Your task to perform on an android device: open app "Booking.com: Hotels and more" Image 0: 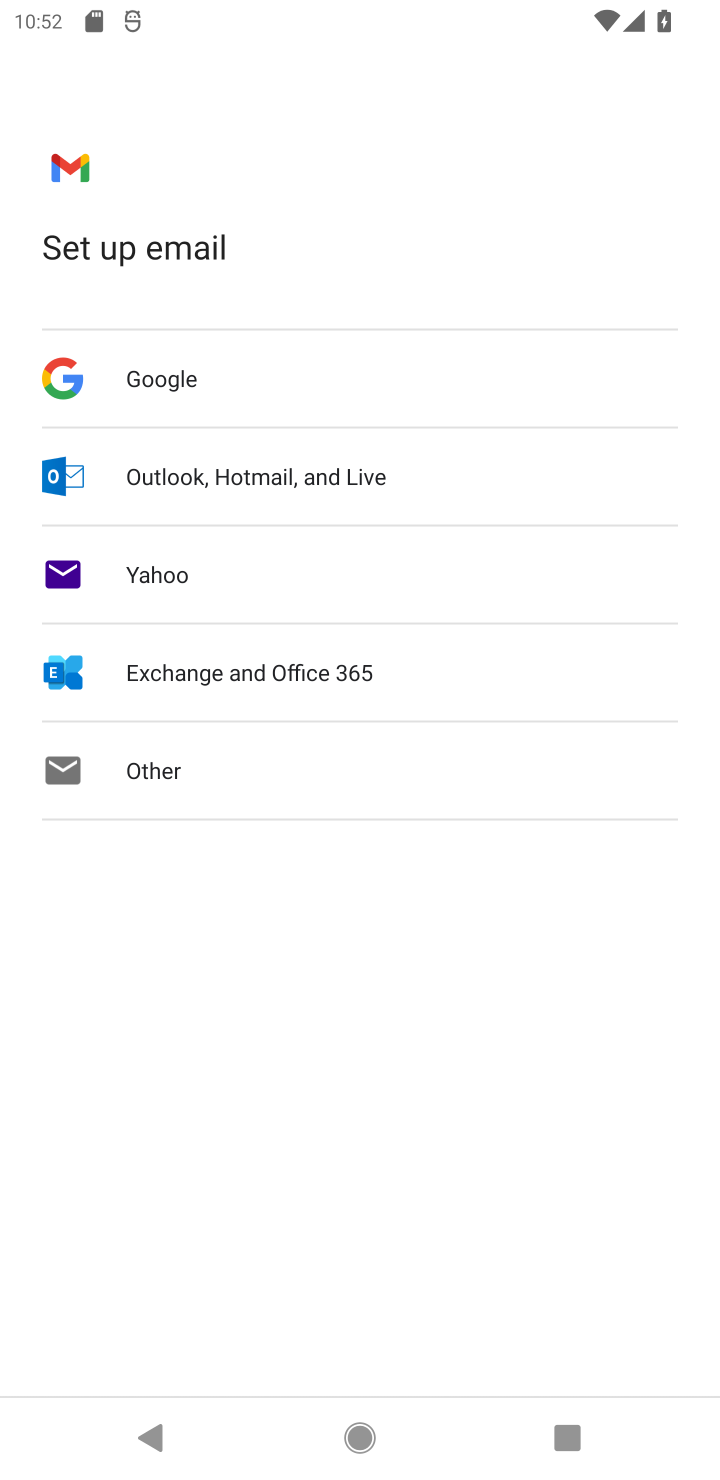
Step 0: press home button
Your task to perform on an android device: open app "Booking.com: Hotels and more" Image 1: 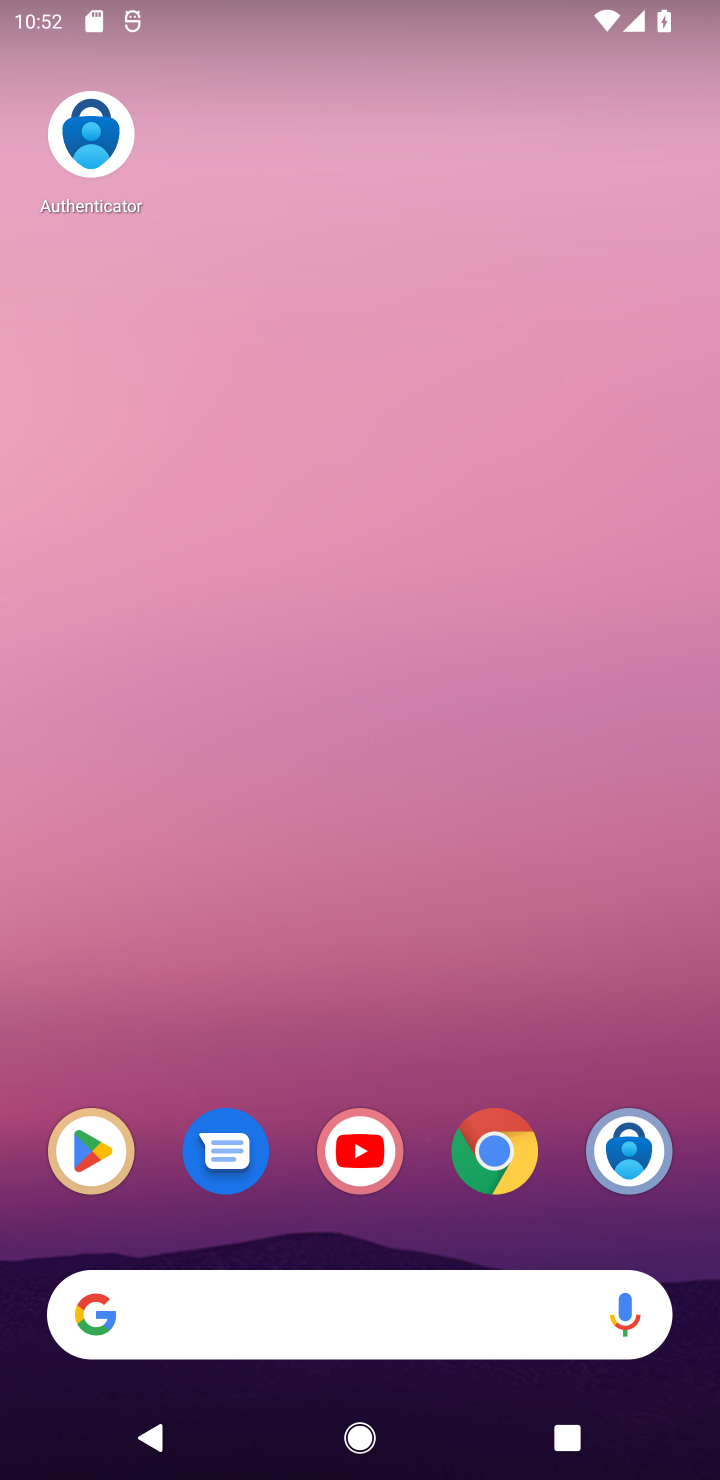
Step 1: drag from (244, 1140) to (681, 550)
Your task to perform on an android device: open app "Booking.com: Hotels and more" Image 2: 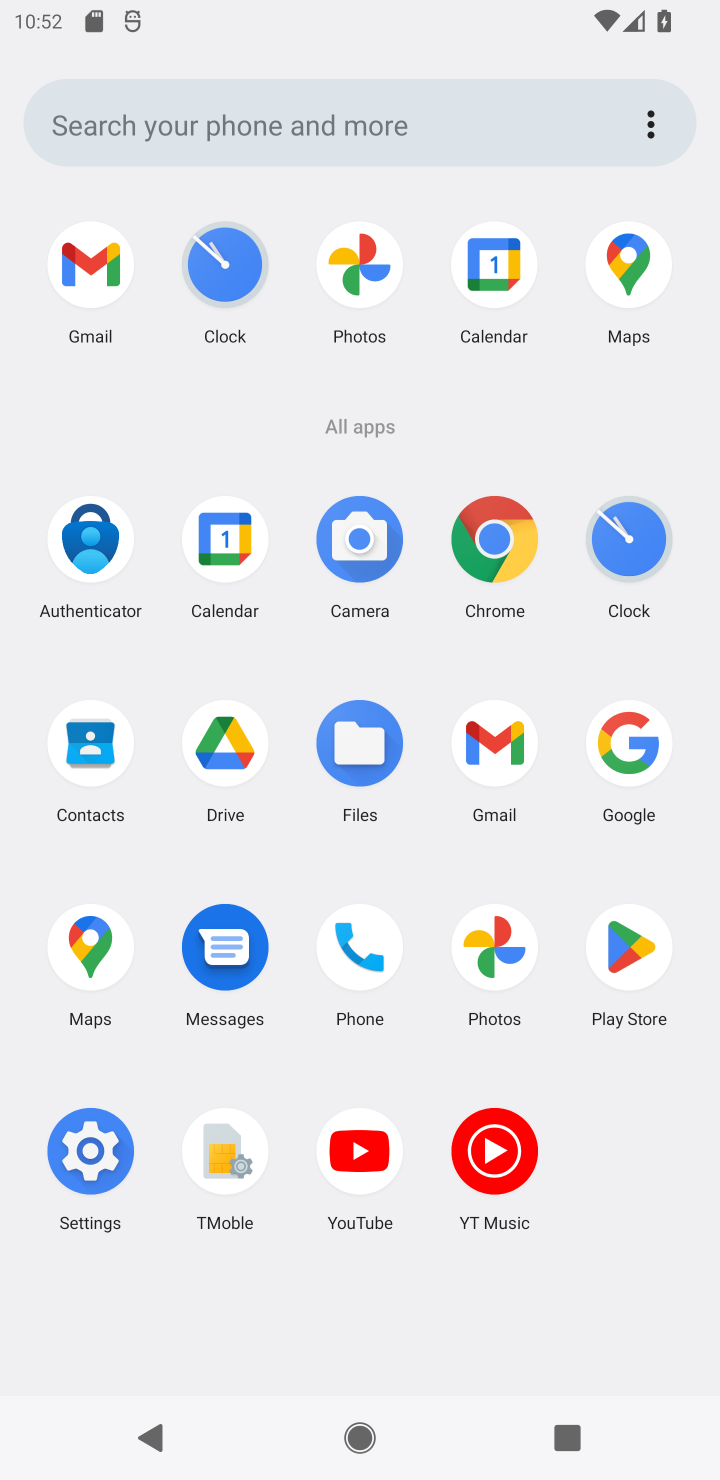
Step 2: click (624, 957)
Your task to perform on an android device: open app "Booking.com: Hotels and more" Image 3: 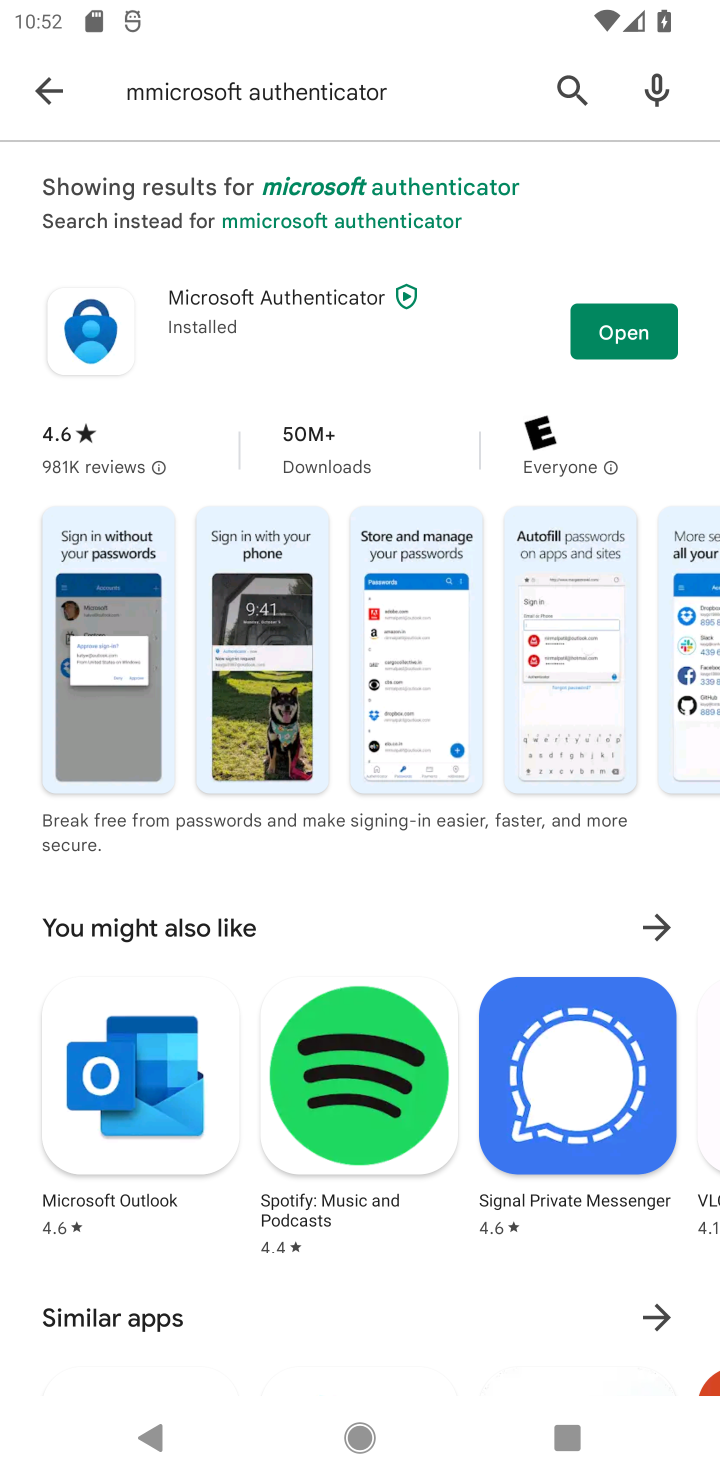
Step 3: click (30, 89)
Your task to perform on an android device: open app "Booking.com: Hotels and more" Image 4: 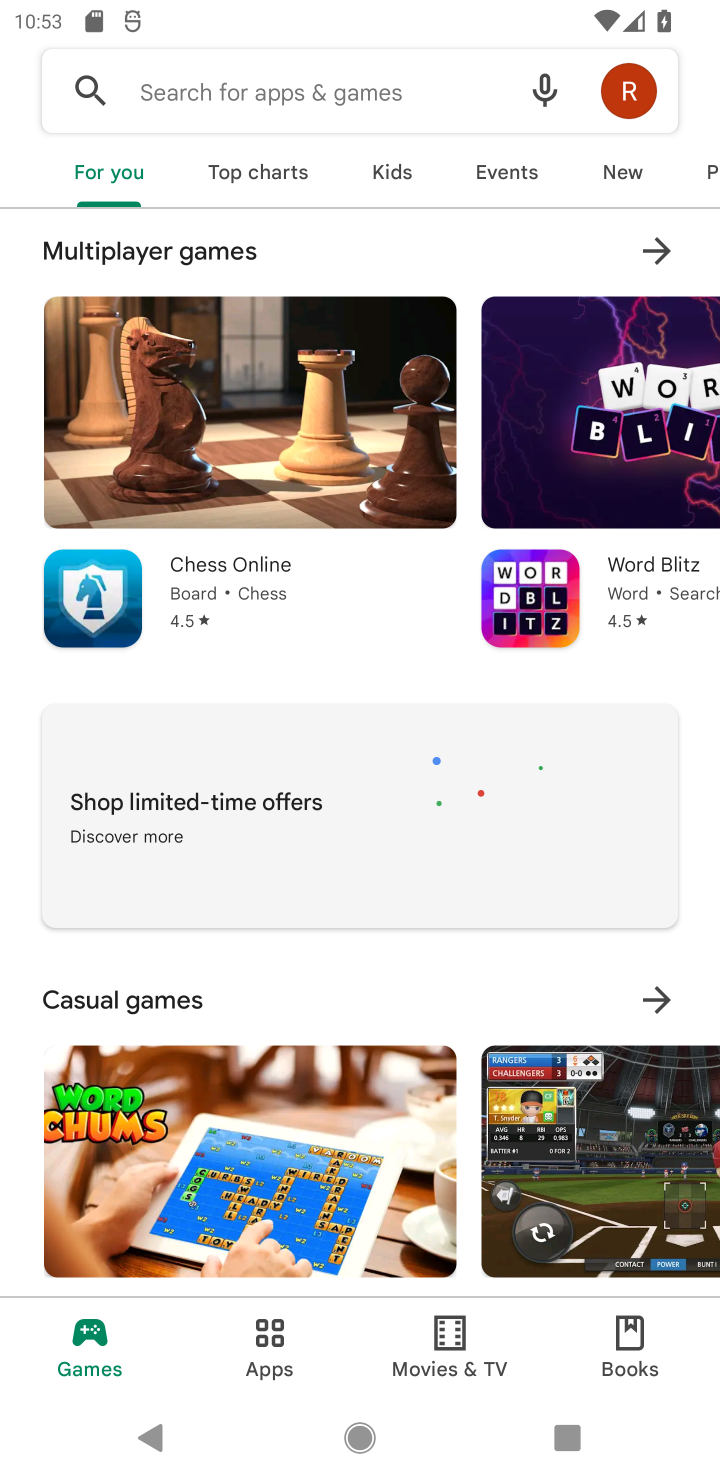
Step 4: click (181, 91)
Your task to perform on an android device: open app "Booking.com: Hotels and more" Image 5: 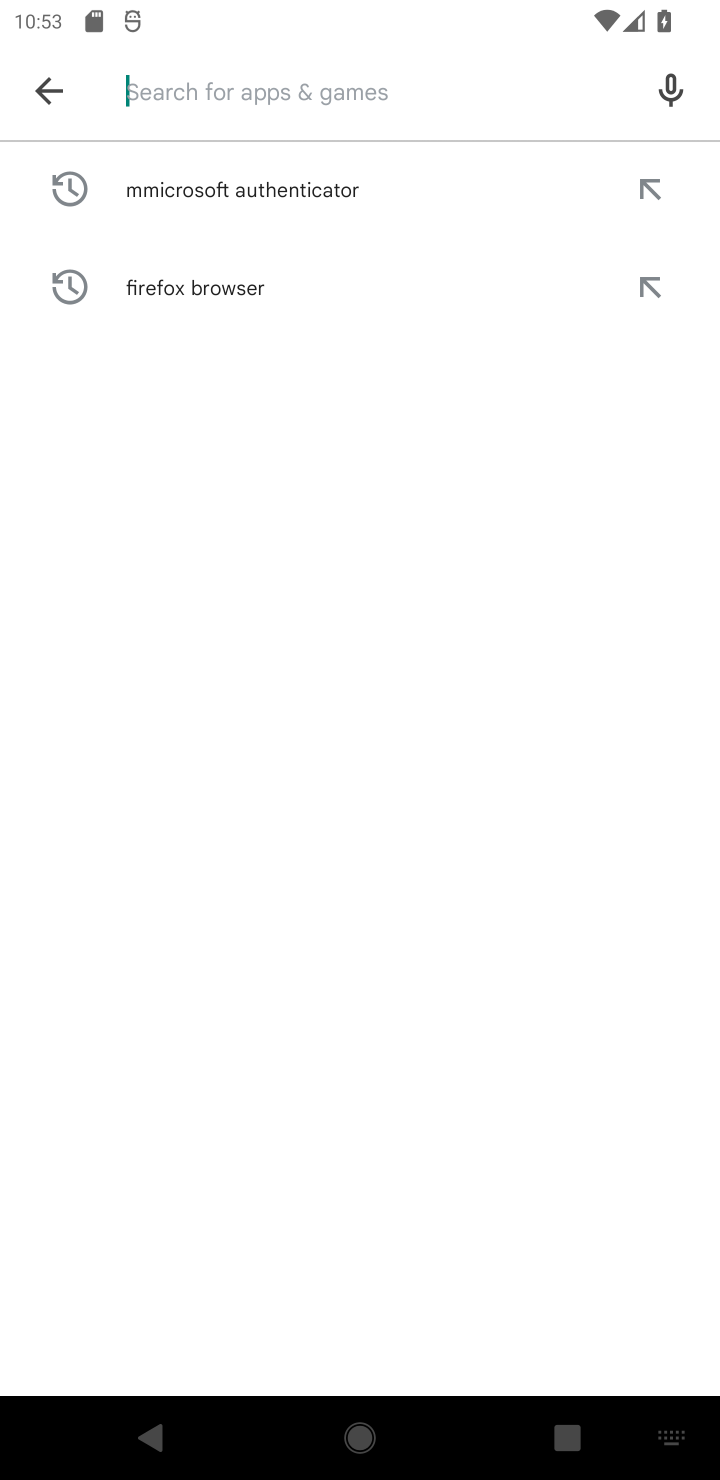
Step 5: type "Booking.com: Hotels and more"
Your task to perform on an android device: open app "Booking.com: Hotels and more" Image 6: 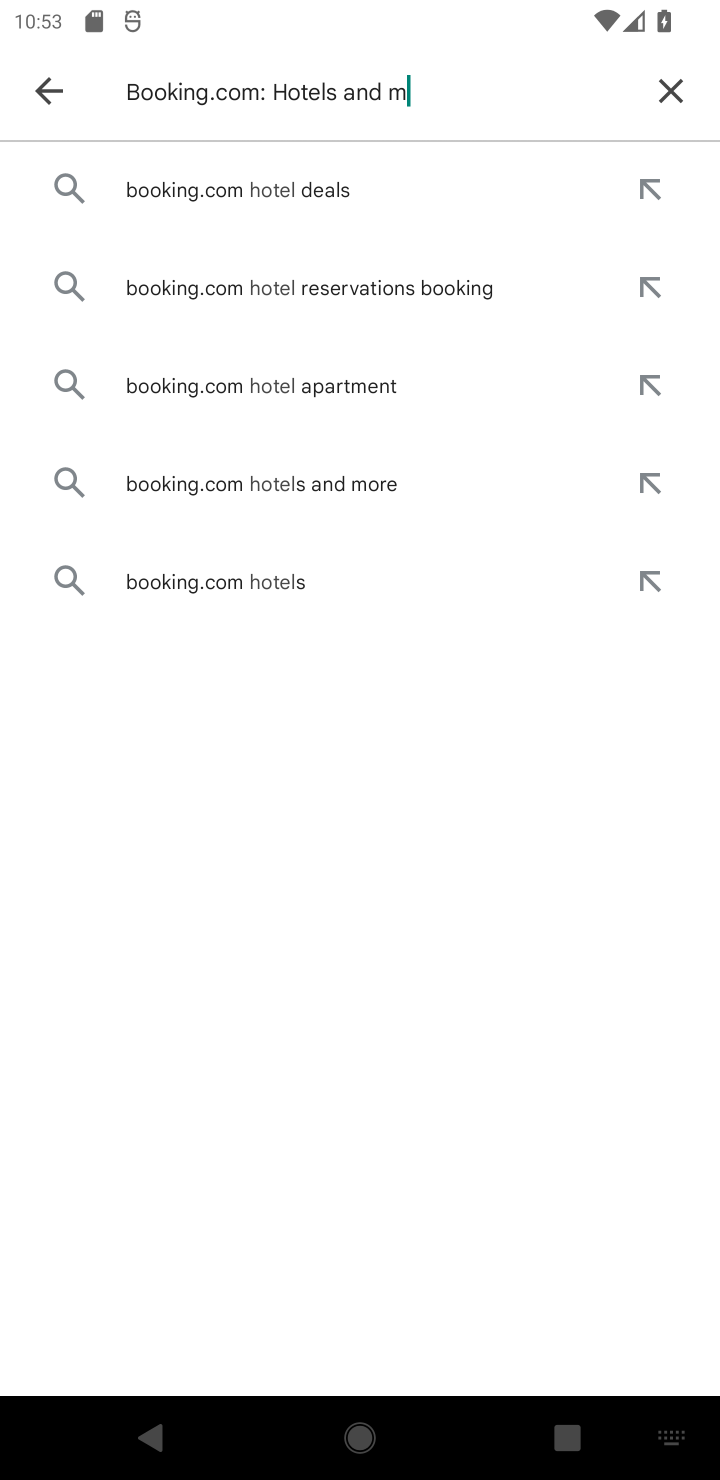
Step 6: type ""
Your task to perform on an android device: open app "Booking.com: Hotels and more" Image 7: 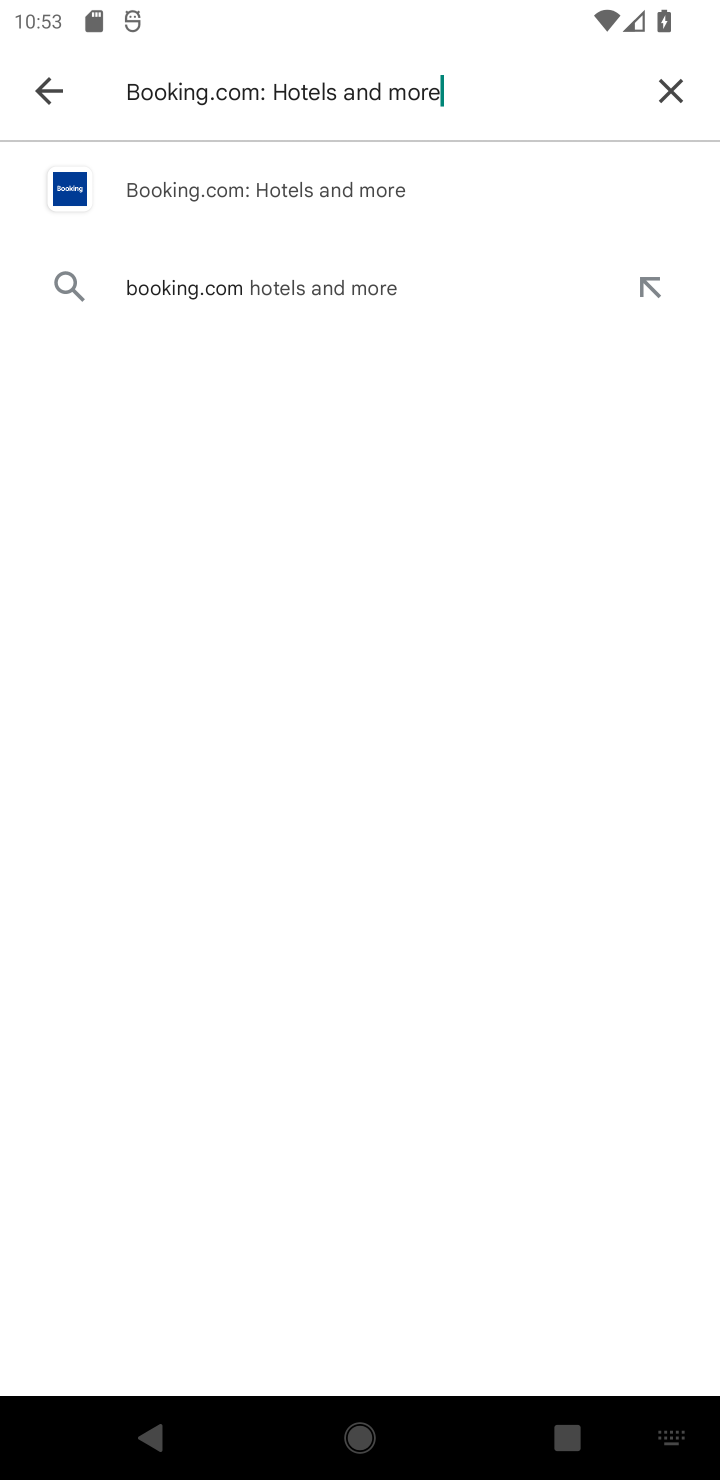
Step 7: click (168, 199)
Your task to perform on an android device: open app "Booking.com: Hotels and more" Image 8: 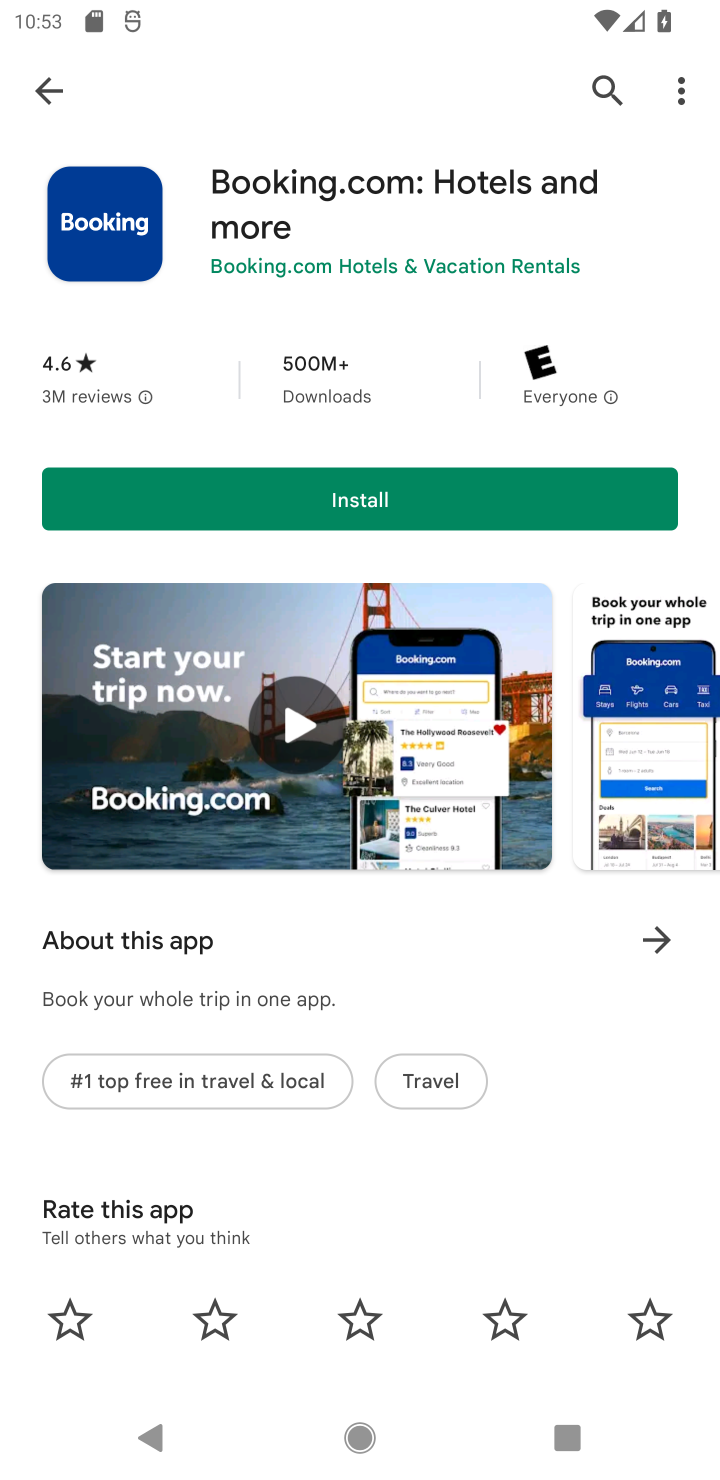
Step 8: task complete